Your task to perform on an android device: What is the average speed of a car? Image 0: 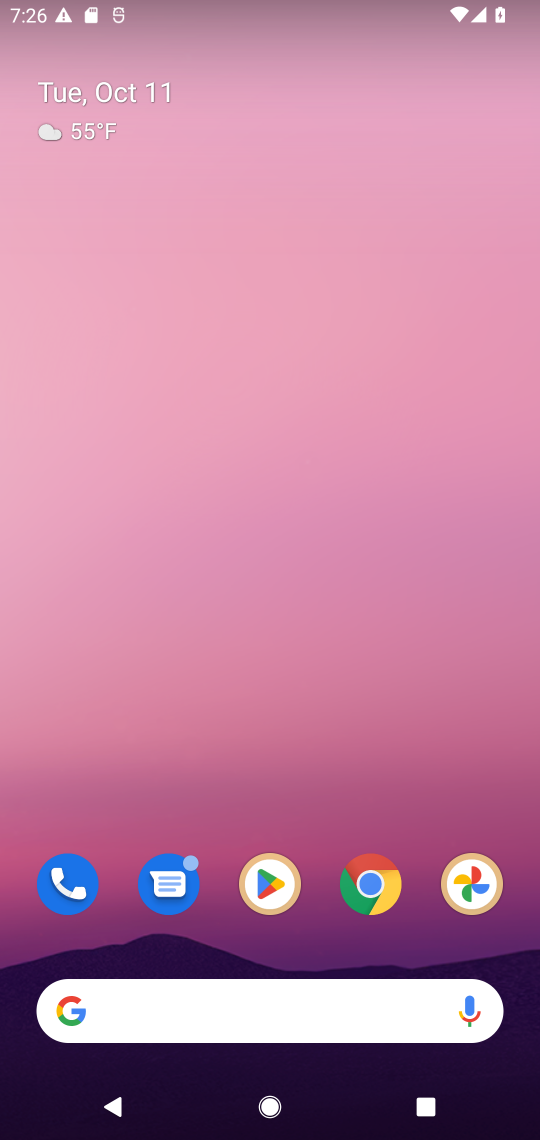
Step 0: drag from (231, 807) to (237, 216)
Your task to perform on an android device: What is the average speed of a car? Image 1: 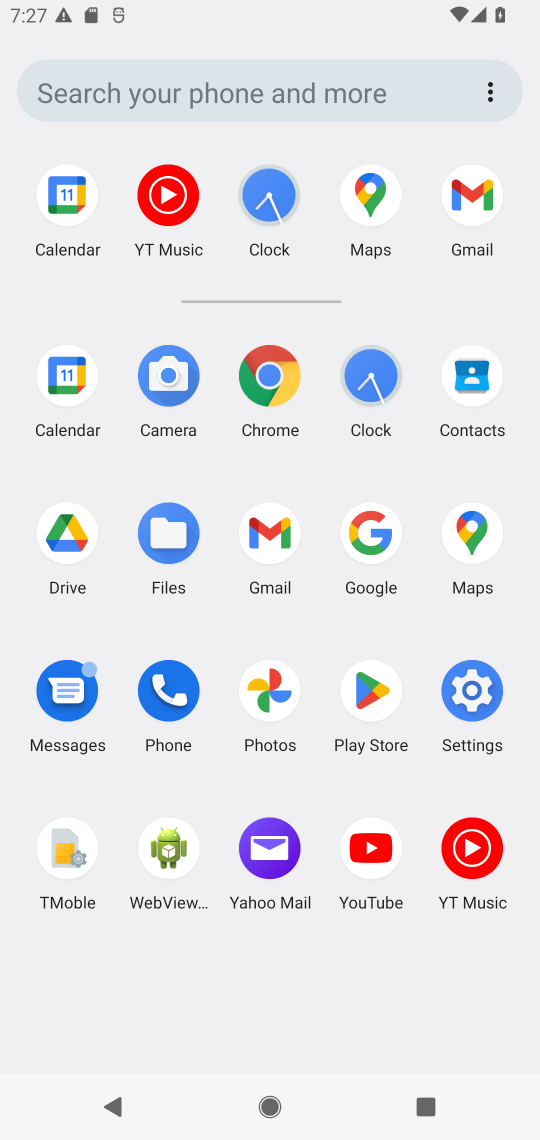
Step 1: click (368, 539)
Your task to perform on an android device: What is the average speed of a car? Image 2: 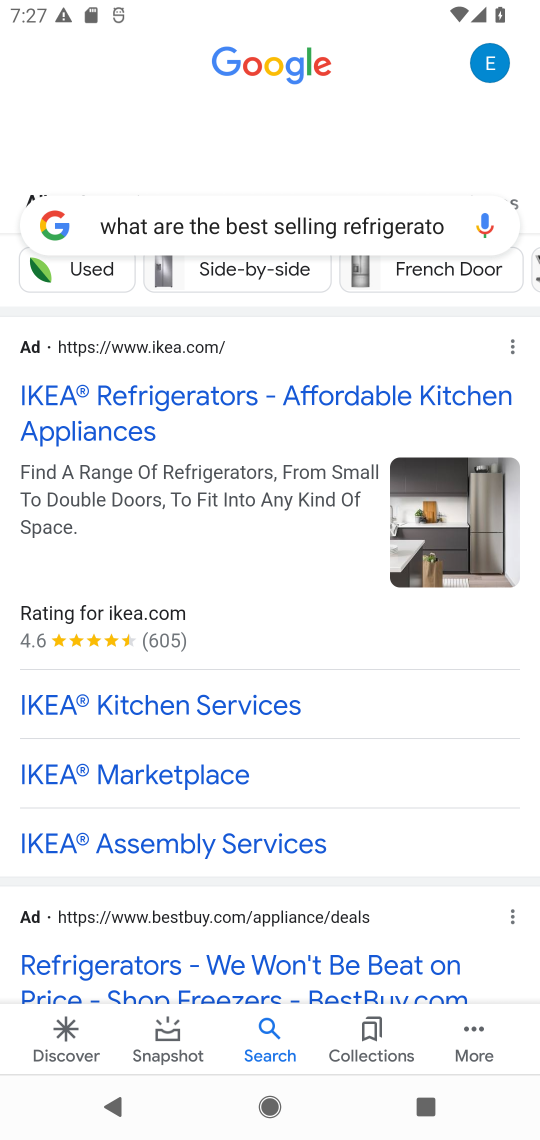
Step 2: click (349, 216)
Your task to perform on an android device: What is the average speed of a car? Image 3: 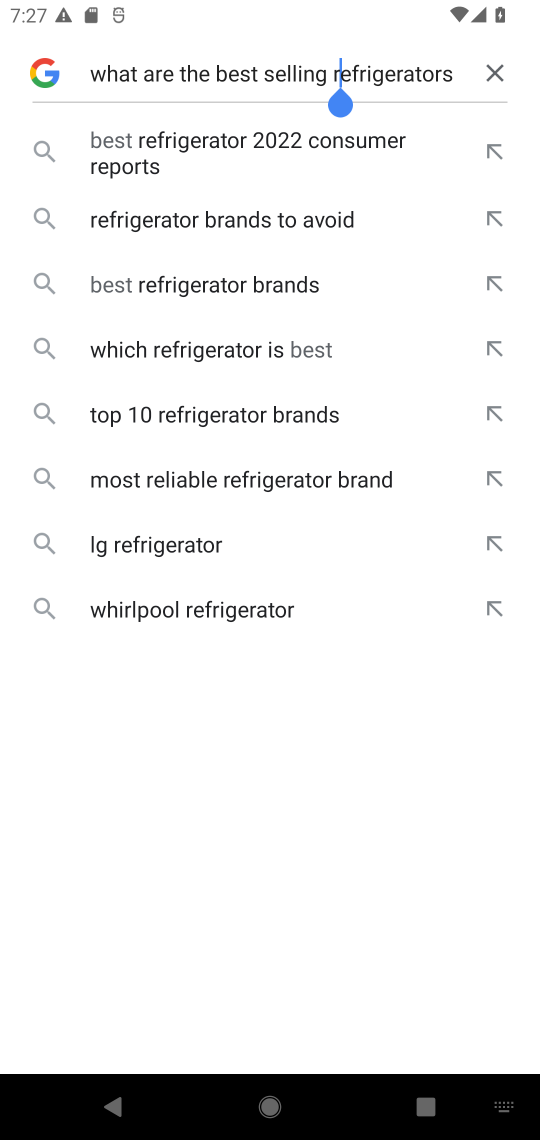
Step 3: click (502, 71)
Your task to perform on an android device: What is the average speed of a car? Image 4: 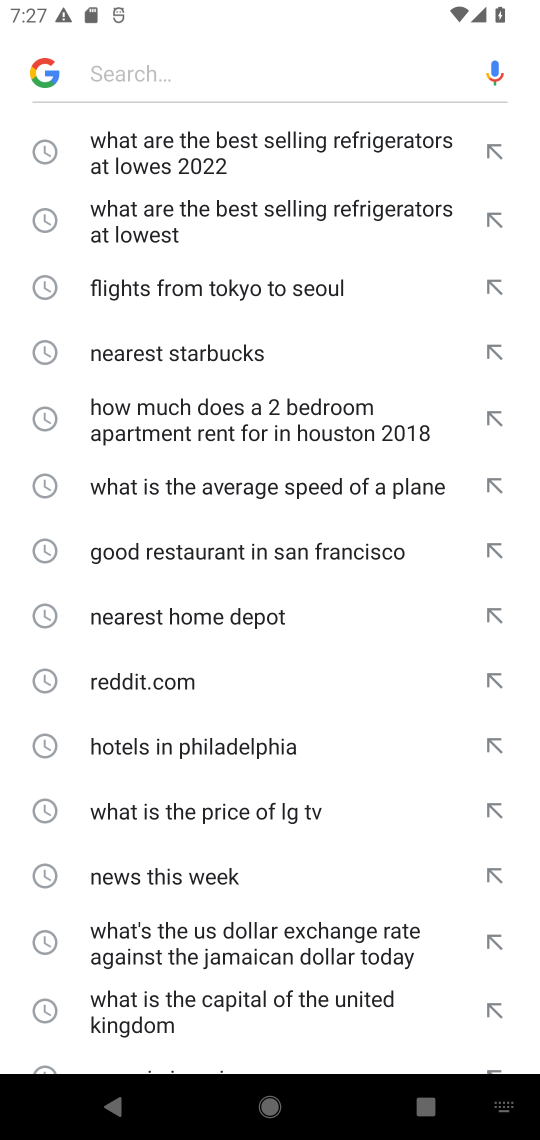
Step 4: type "What is the average speed of a car?"
Your task to perform on an android device: What is the average speed of a car? Image 5: 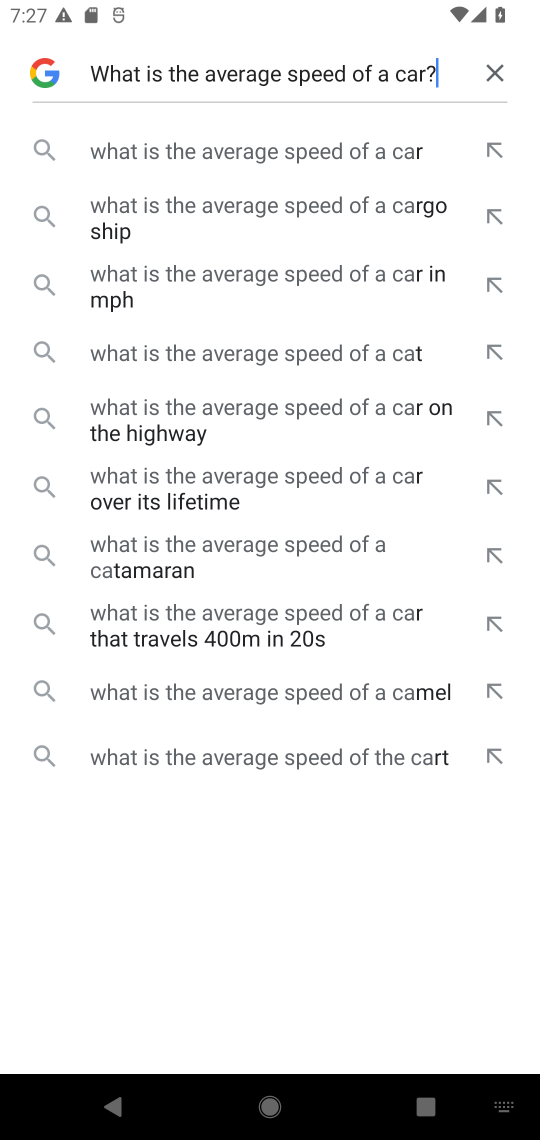
Step 5: type ""
Your task to perform on an android device: What is the average speed of a car? Image 6: 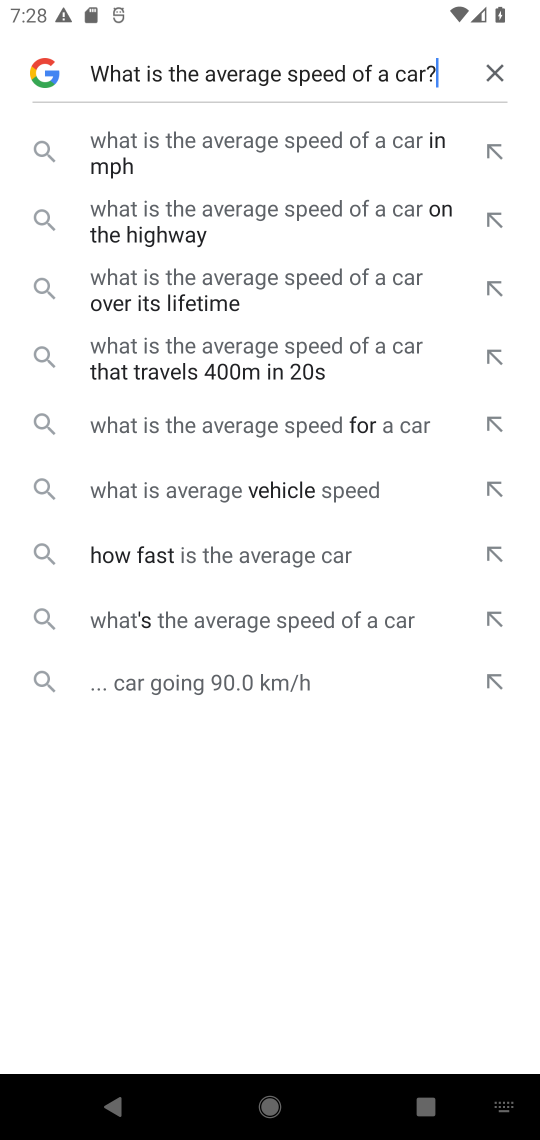
Step 6: click (234, 133)
Your task to perform on an android device: What is the average speed of a car? Image 7: 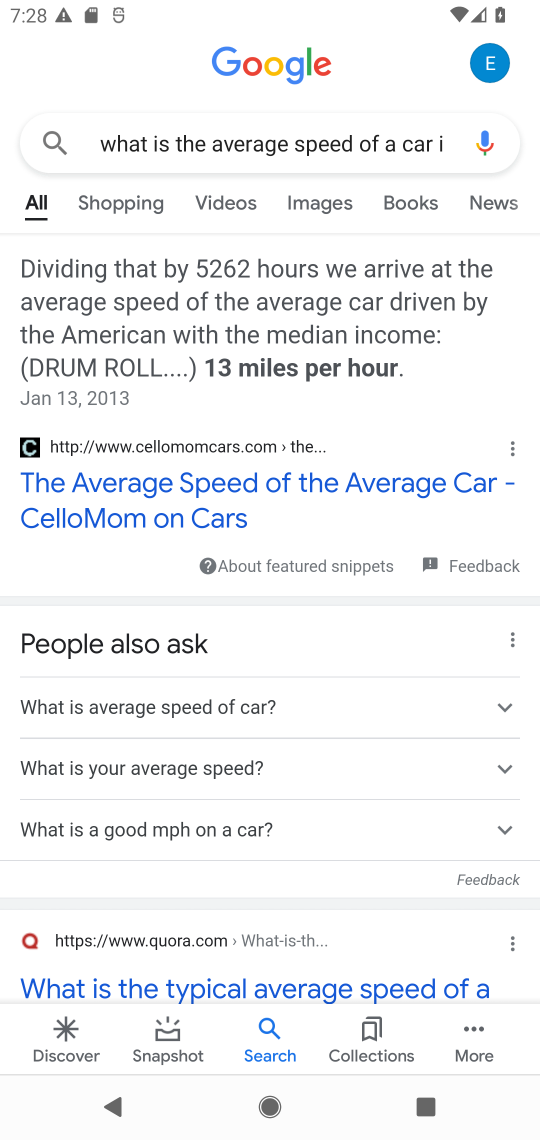
Step 7: task complete